Your task to perform on an android device: choose inbox layout in the gmail app Image 0: 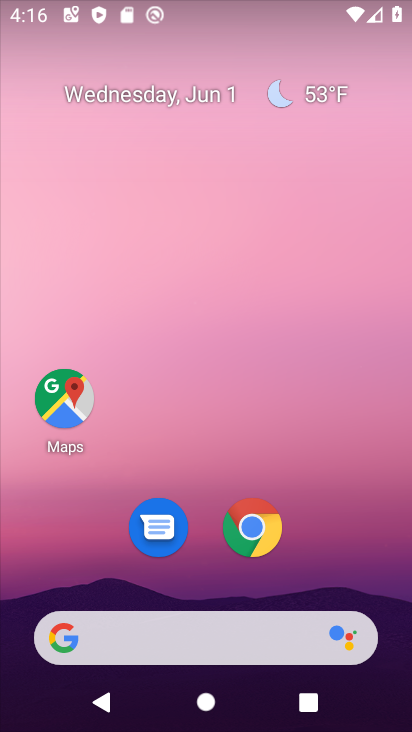
Step 0: drag from (310, 551) to (351, 60)
Your task to perform on an android device: choose inbox layout in the gmail app Image 1: 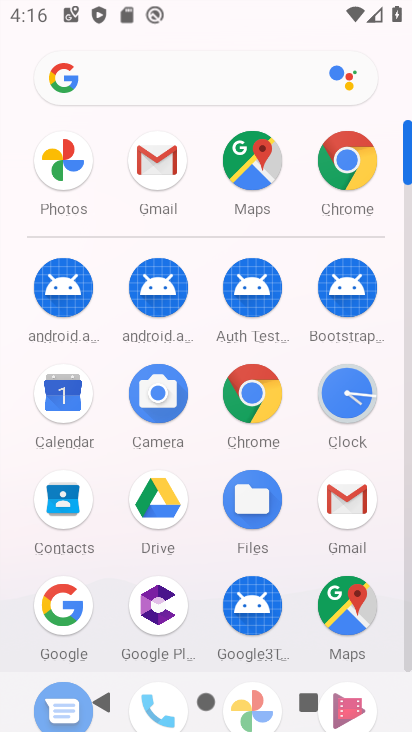
Step 1: click (351, 494)
Your task to perform on an android device: choose inbox layout in the gmail app Image 2: 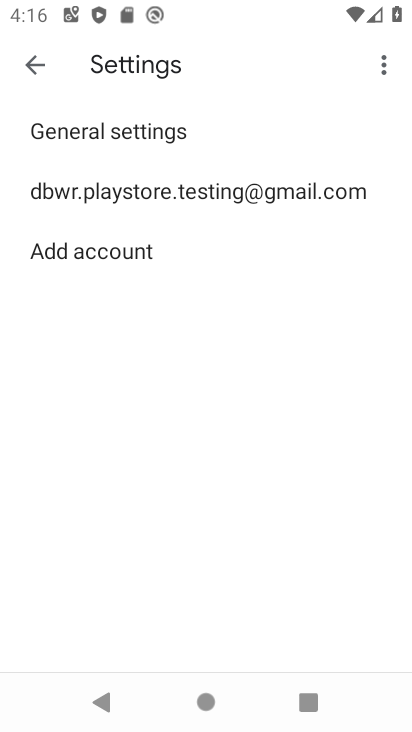
Step 2: click (220, 195)
Your task to perform on an android device: choose inbox layout in the gmail app Image 3: 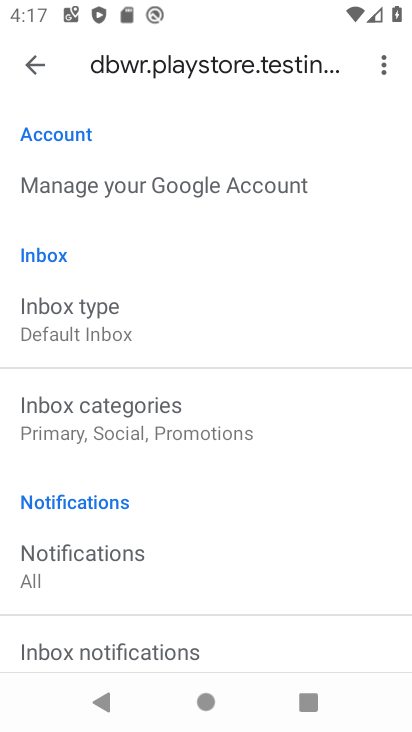
Step 3: click (105, 328)
Your task to perform on an android device: choose inbox layout in the gmail app Image 4: 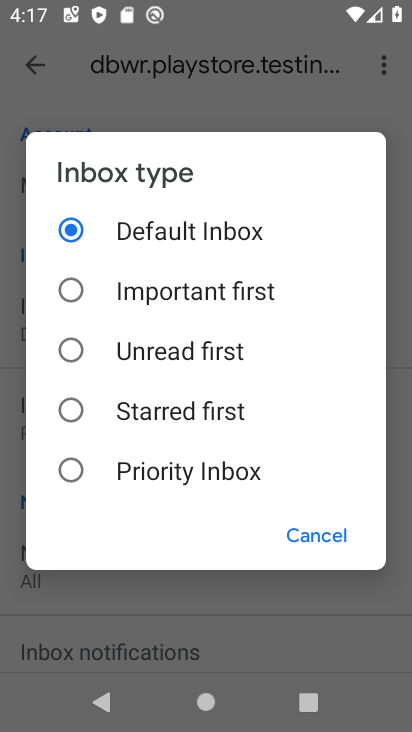
Step 4: click (137, 472)
Your task to perform on an android device: choose inbox layout in the gmail app Image 5: 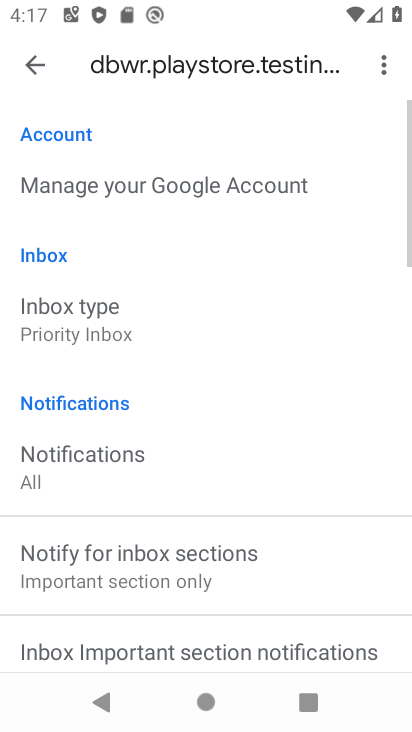
Step 5: task complete